Your task to perform on an android device: open app "Adobe Acrobat Reader" Image 0: 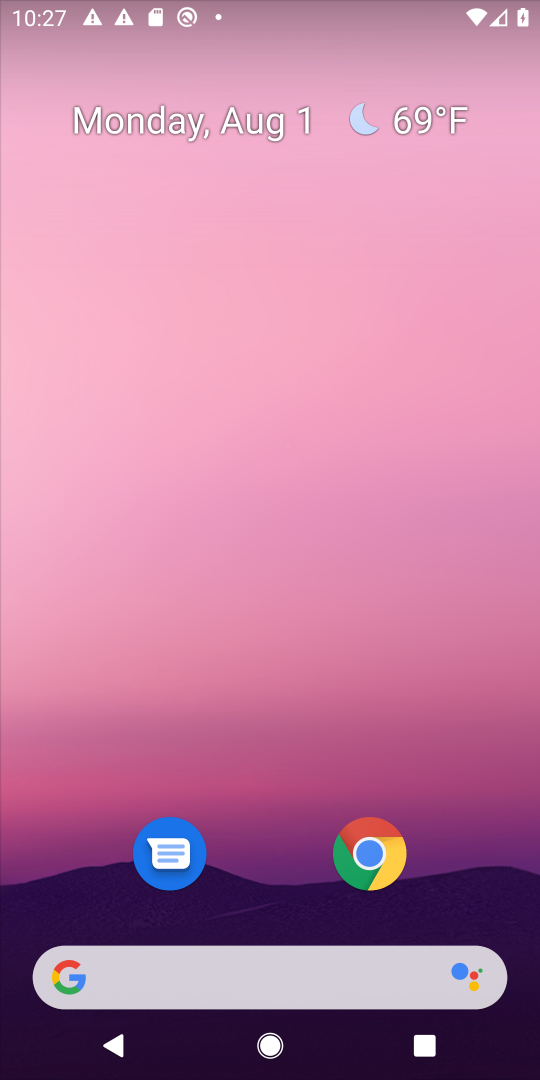
Step 0: drag from (279, 849) to (184, 131)
Your task to perform on an android device: open app "Adobe Acrobat Reader" Image 1: 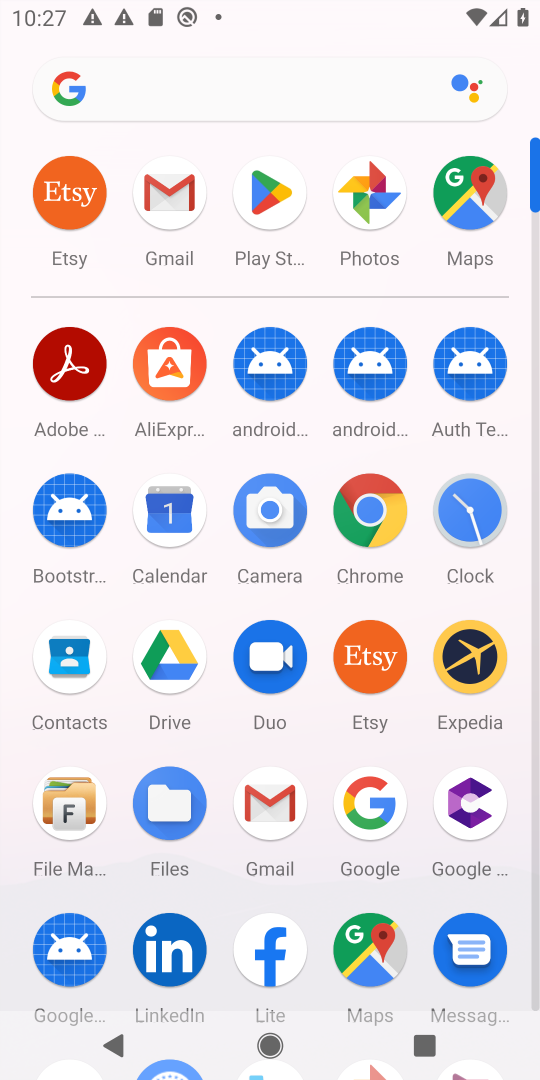
Step 1: click (261, 190)
Your task to perform on an android device: open app "Adobe Acrobat Reader" Image 2: 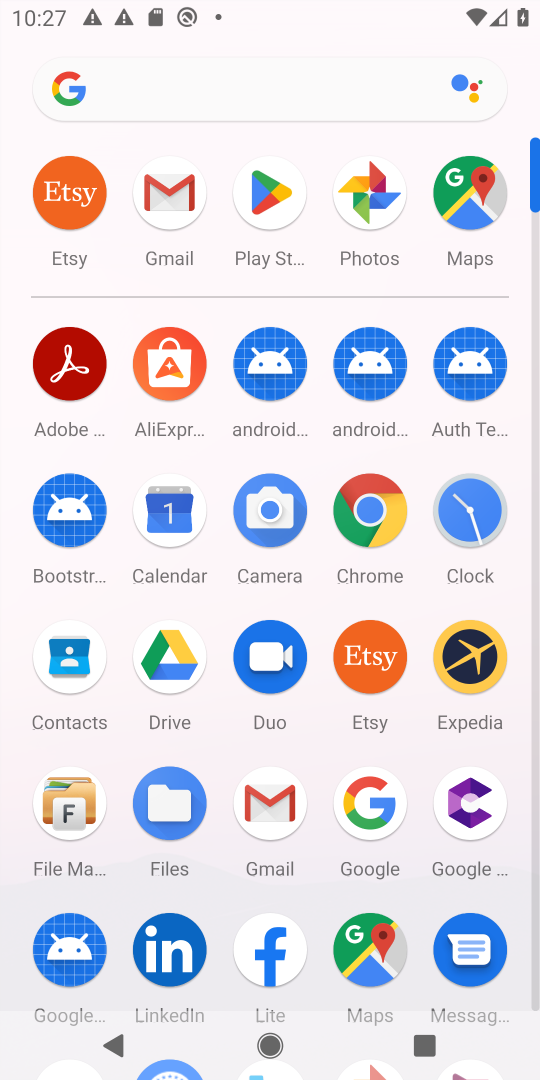
Step 2: click (261, 190)
Your task to perform on an android device: open app "Adobe Acrobat Reader" Image 3: 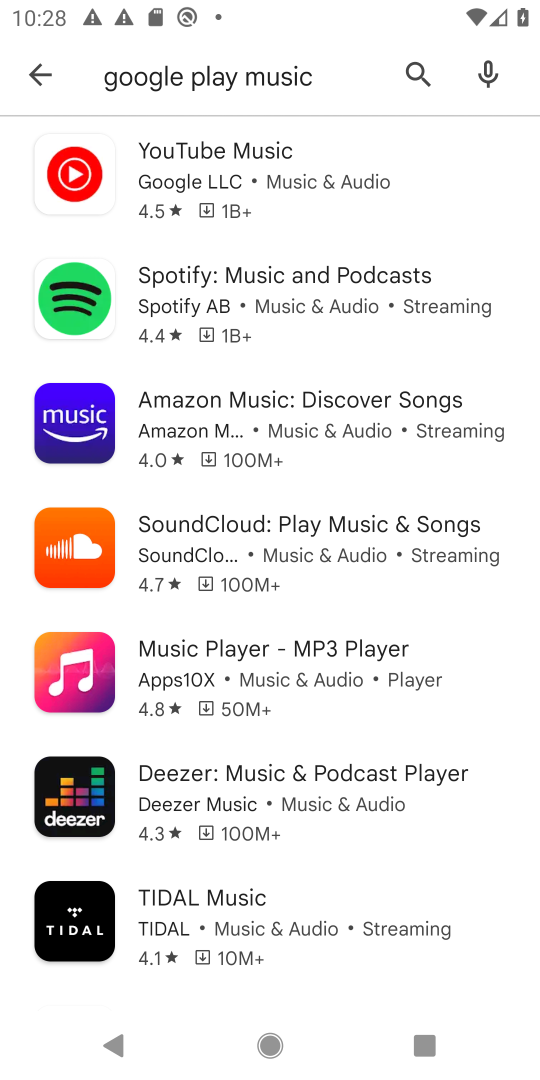
Step 3: click (425, 78)
Your task to perform on an android device: open app "Adobe Acrobat Reader" Image 4: 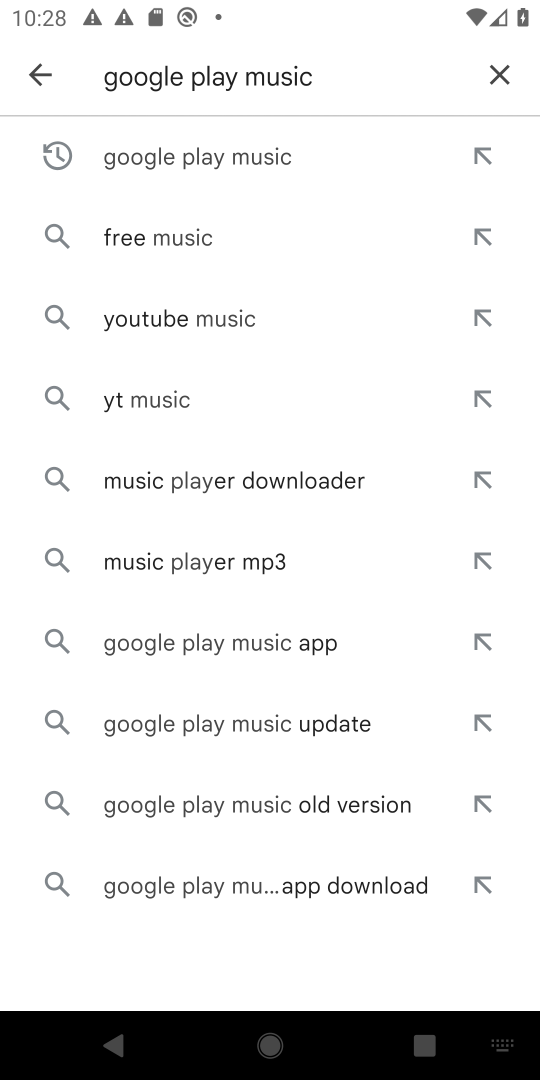
Step 4: click (496, 72)
Your task to perform on an android device: open app "Adobe Acrobat Reader" Image 5: 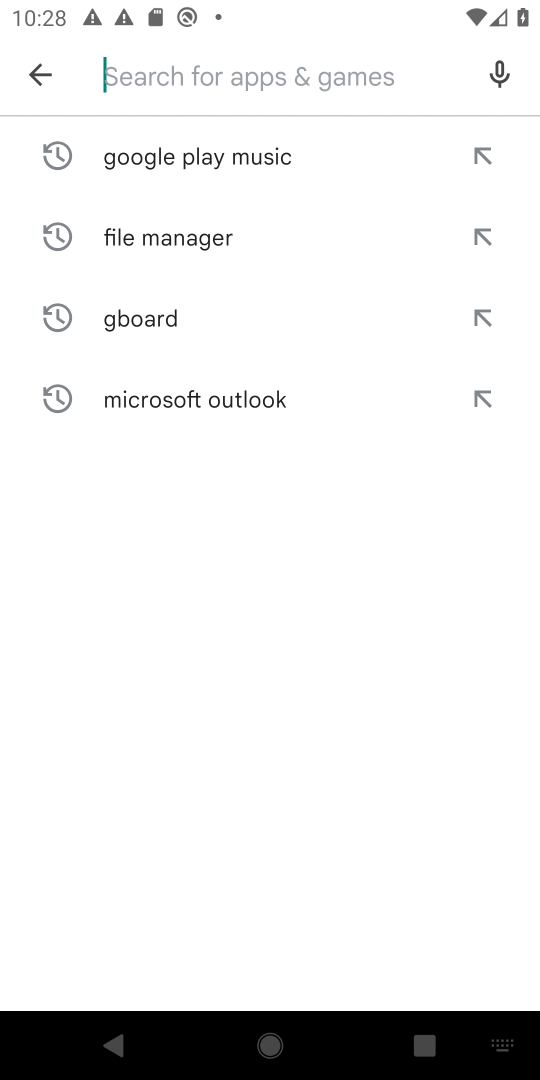
Step 5: drag from (449, 1072) to (518, 698)
Your task to perform on an android device: open app "Adobe Acrobat Reader" Image 6: 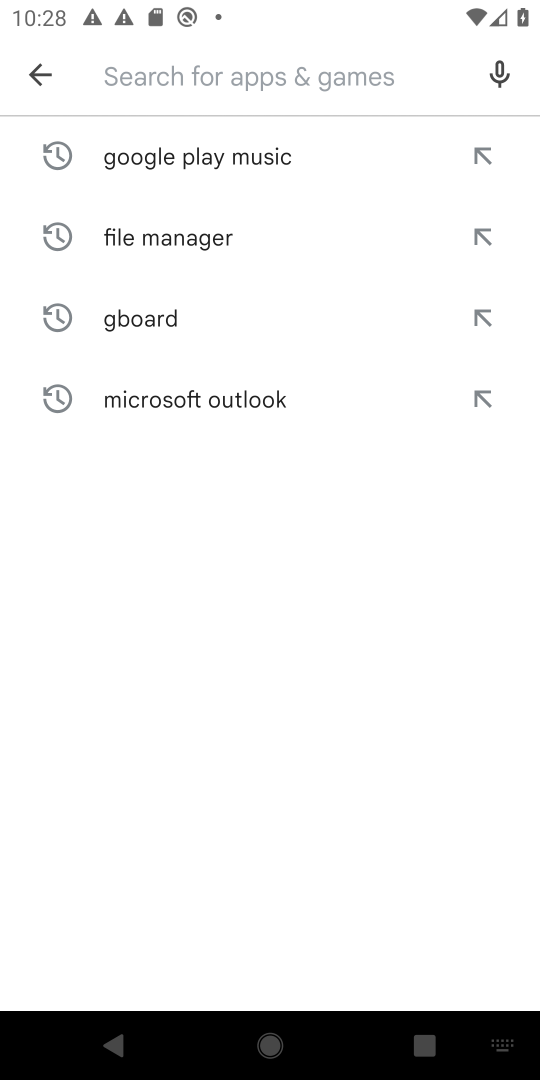
Step 6: type "Adobe Acrobat Reader"
Your task to perform on an android device: open app "Adobe Acrobat Reader" Image 7: 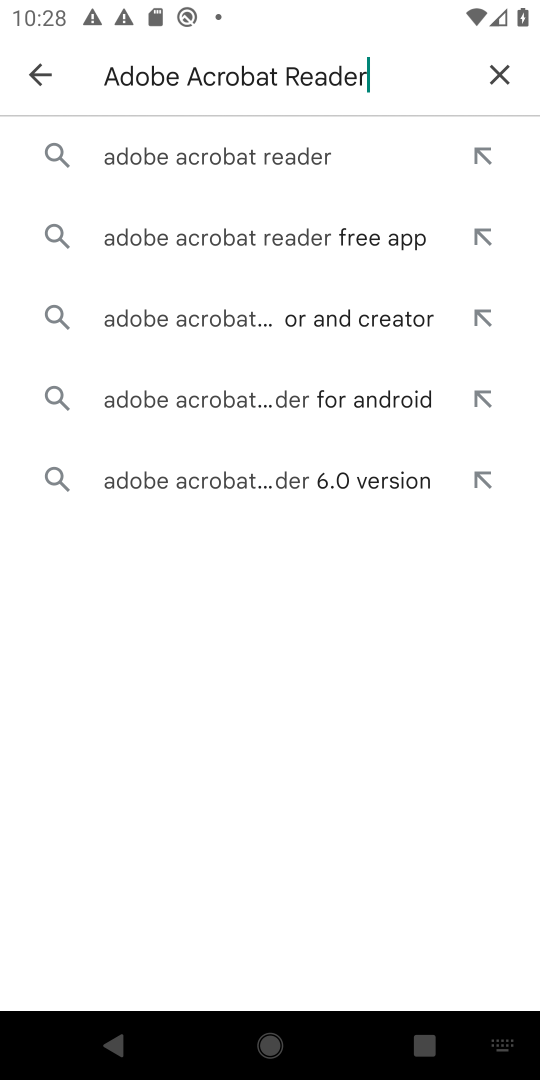
Step 7: click (249, 152)
Your task to perform on an android device: open app "Adobe Acrobat Reader" Image 8: 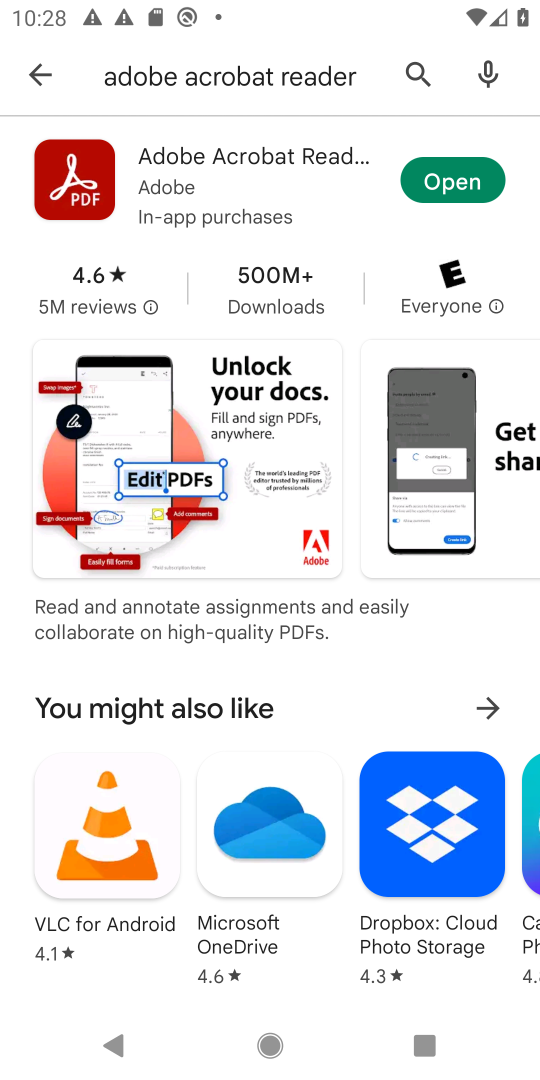
Step 8: click (459, 194)
Your task to perform on an android device: open app "Adobe Acrobat Reader" Image 9: 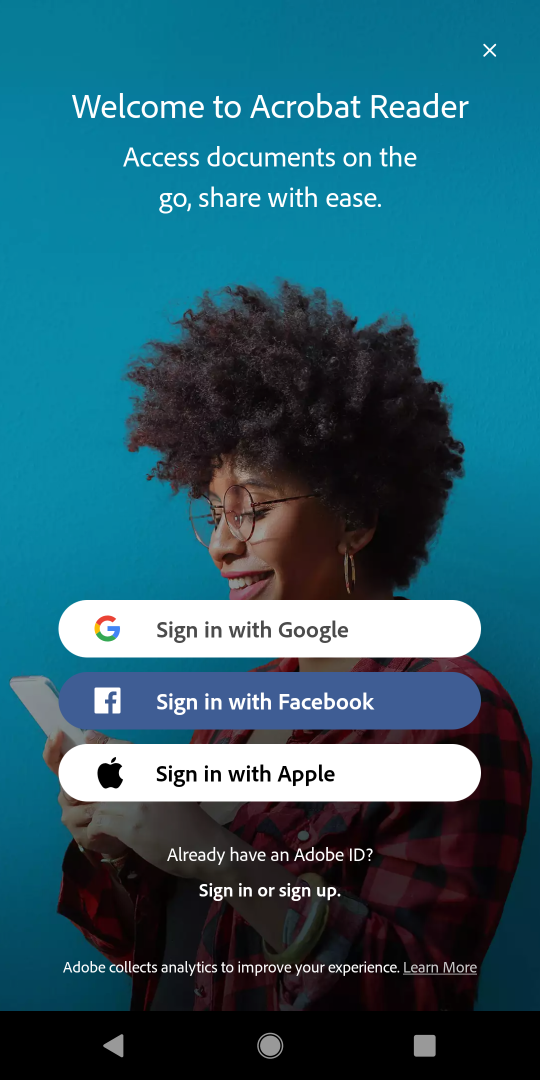
Step 9: task complete